Your task to perform on an android device: add a contact in the contacts app Image 0: 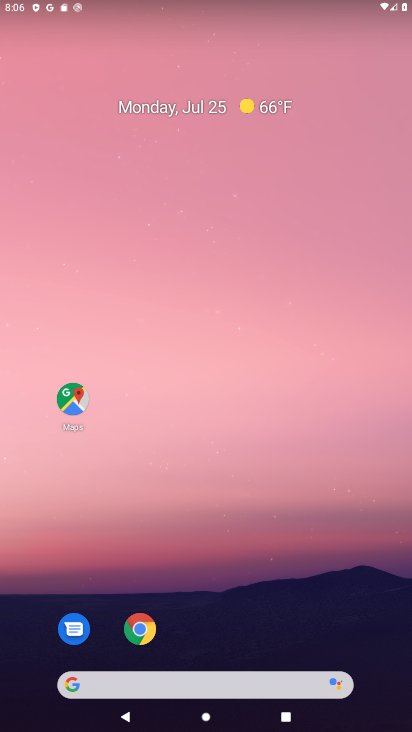
Step 0: press home button
Your task to perform on an android device: add a contact in the contacts app Image 1: 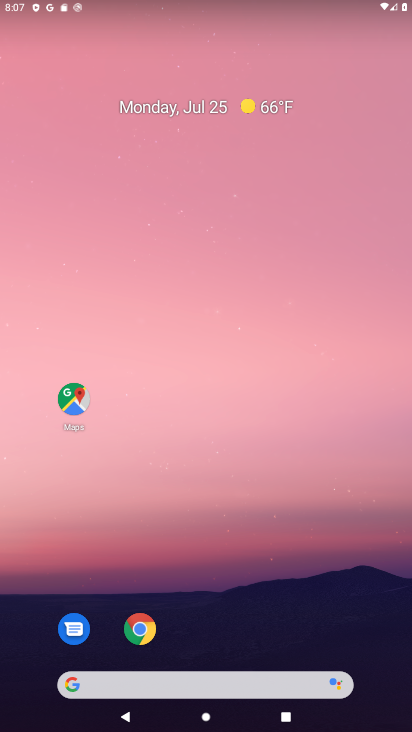
Step 1: drag from (227, 655) to (266, 254)
Your task to perform on an android device: add a contact in the contacts app Image 2: 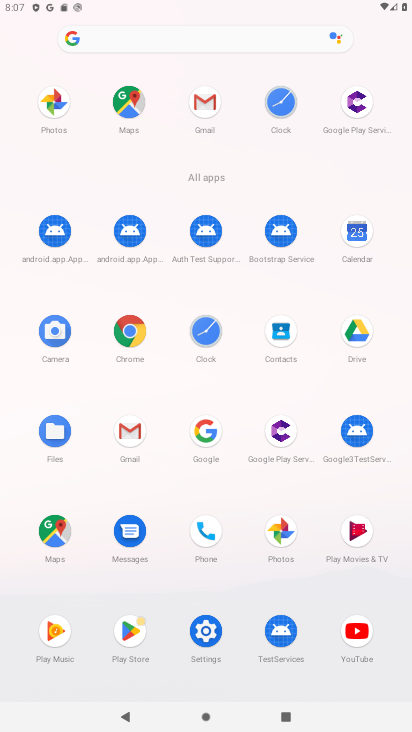
Step 2: click (276, 338)
Your task to perform on an android device: add a contact in the contacts app Image 3: 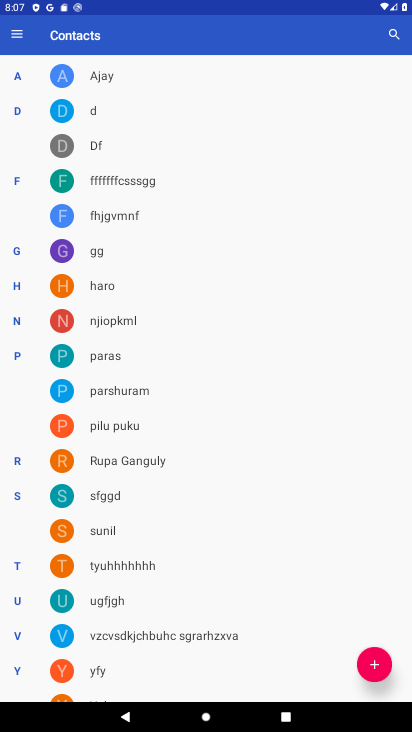
Step 3: click (370, 664)
Your task to perform on an android device: add a contact in the contacts app Image 4: 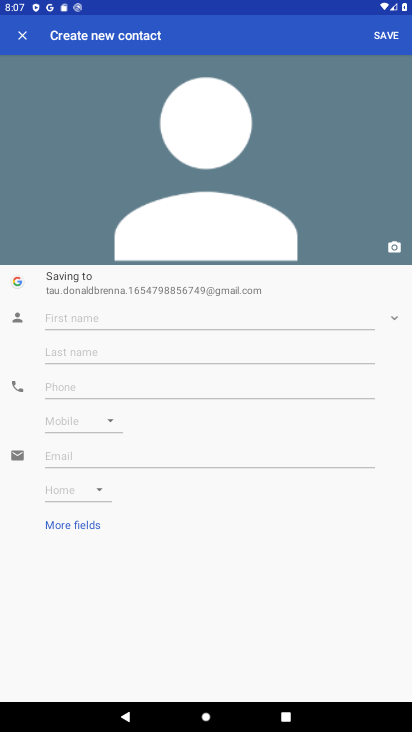
Step 4: type "nhvidyfug"
Your task to perform on an android device: add a contact in the contacts app Image 5: 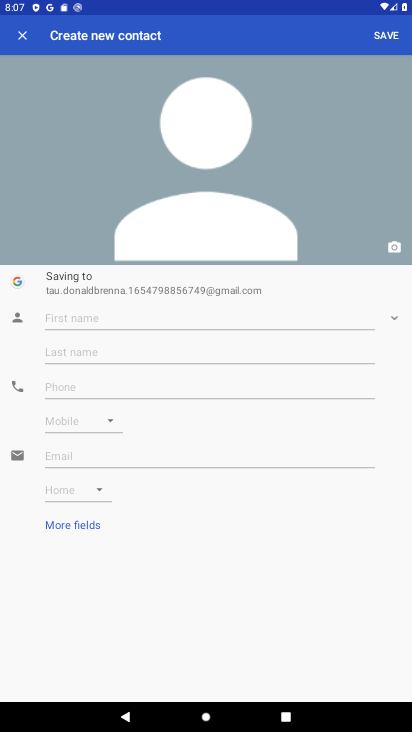
Step 5: click (388, 35)
Your task to perform on an android device: add a contact in the contacts app Image 6: 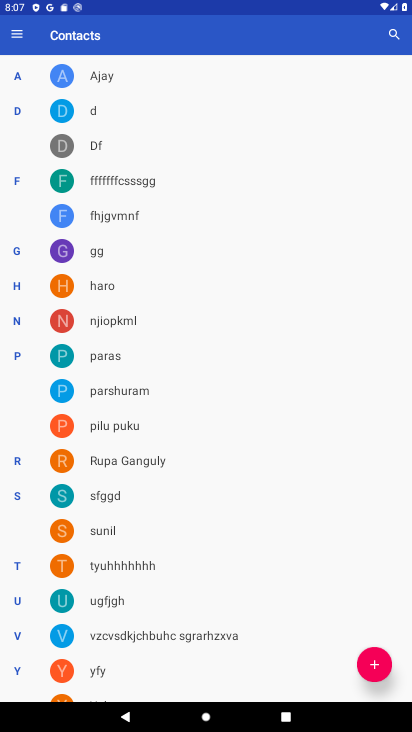
Step 6: click (376, 666)
Your task to perform on an android device: add a contact in the contacts app Image 7: 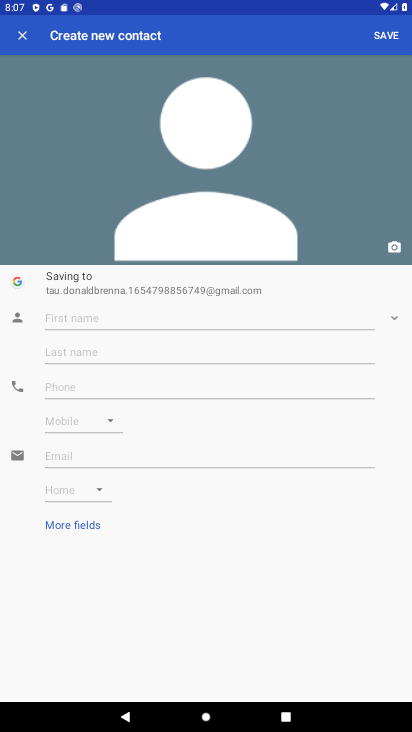
Step 7: click (165, 325)
Your task to perform on an android device: add a contact in the contacts app Image 8: 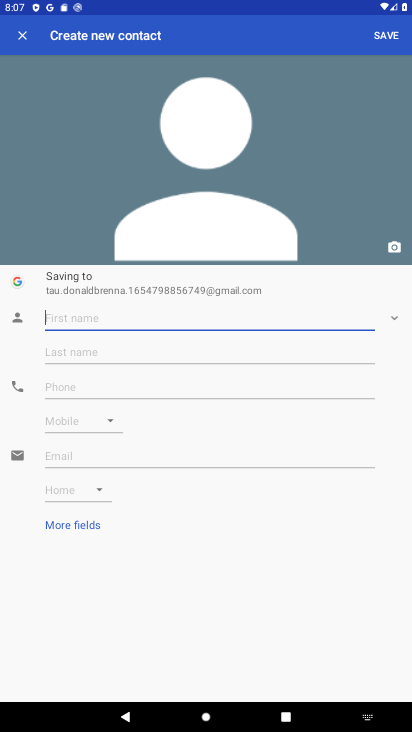
Step 8: type "sfkvjdibjfv"
Your task to perform on an android device: add a contact in the contacts app Image 9: 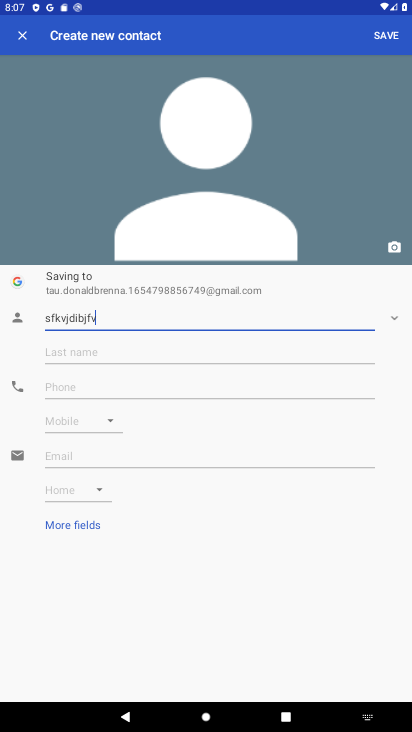
Step 9: click (385, 23)
Your task to perform on an android device: add a contact in the contacts app Image 10: 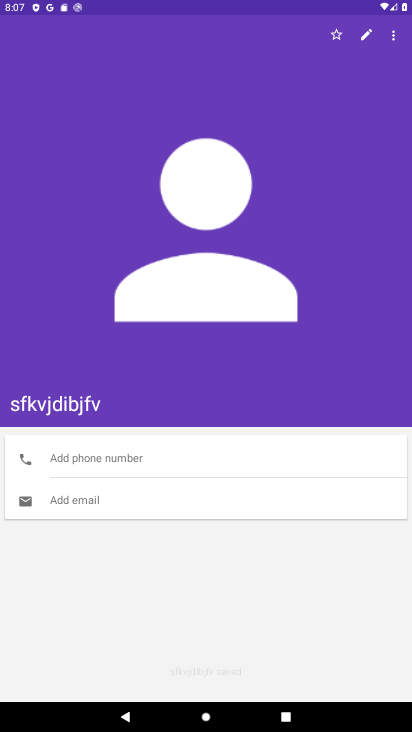
Step 10: task complete